Your task to perform on an android device: turn off improve location accuracy Image 0: 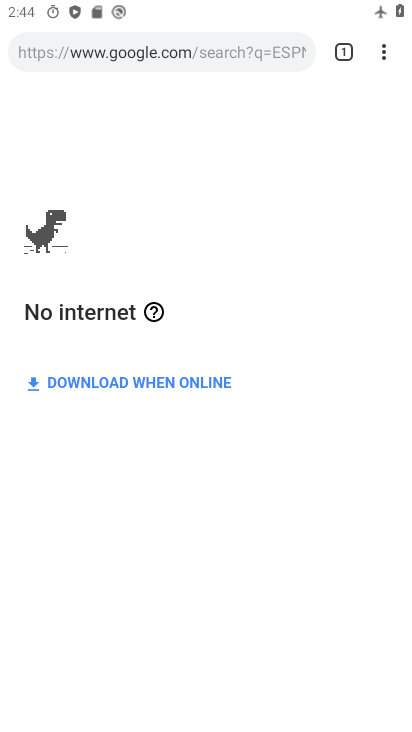
Step 0: press home button
Your task to perform on an android device: turn off improve location accuracy Image 1: 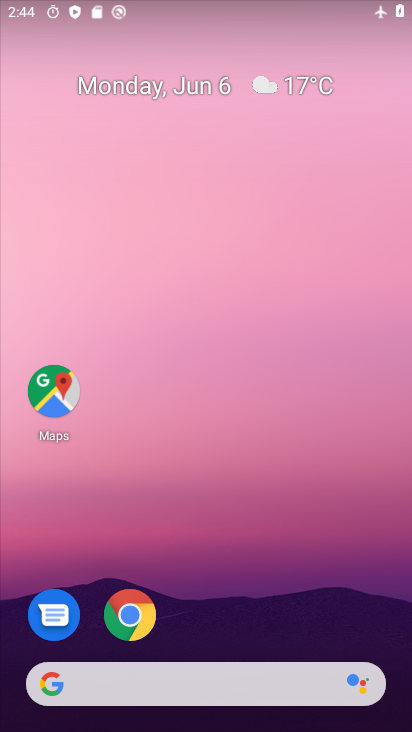
Step 1: drag from (288, 505) to (311, 118)
Your task to perform on an android device: turn off improve location accuracy Image 2: 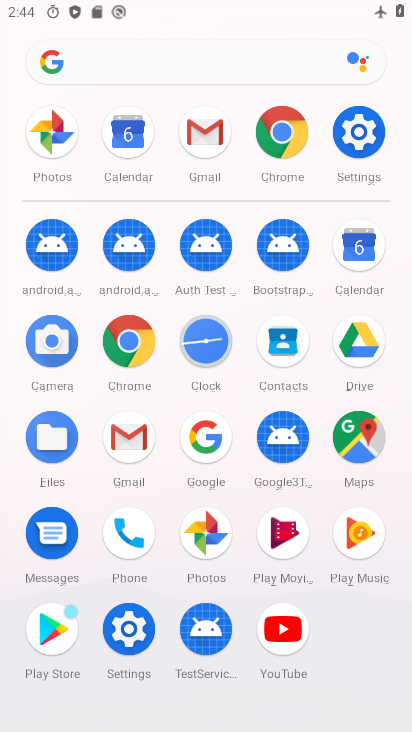
Step 2: click (362, 134)
Your task to perform on an android device: turn off improve location accuracy Image 3: 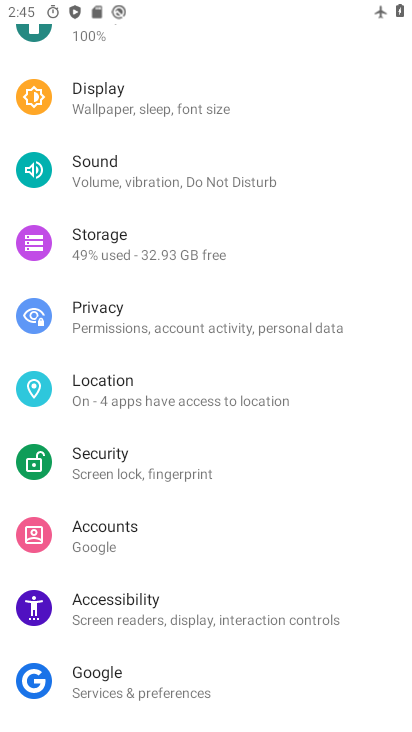
Step 3: click (150, 405)
Your task to perform on an android device: turn off improve location accuracy Image 4: 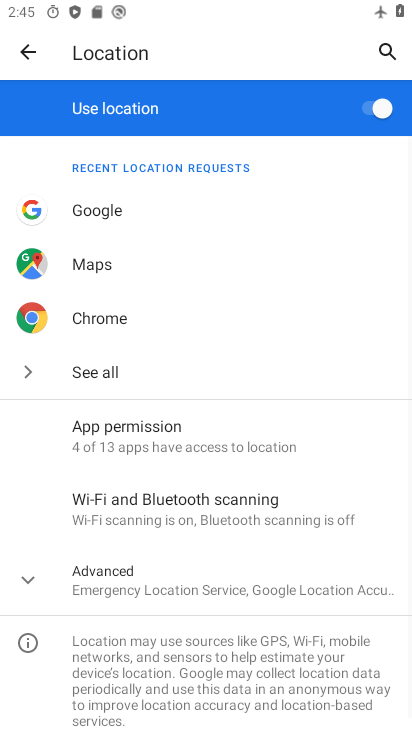
Step 4: click (190, 591)
Your task to perform on an android device: turn off improve location accuracy Image 5: 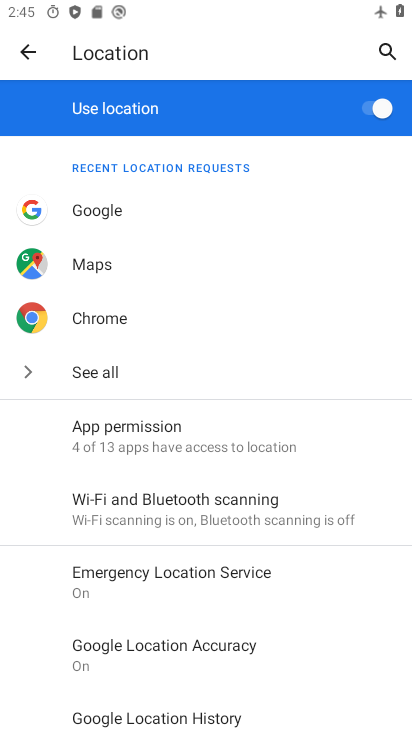
Step 5: click (181, 645)
Your task to perform on an android device: turn off improve location accuracy Image 6: 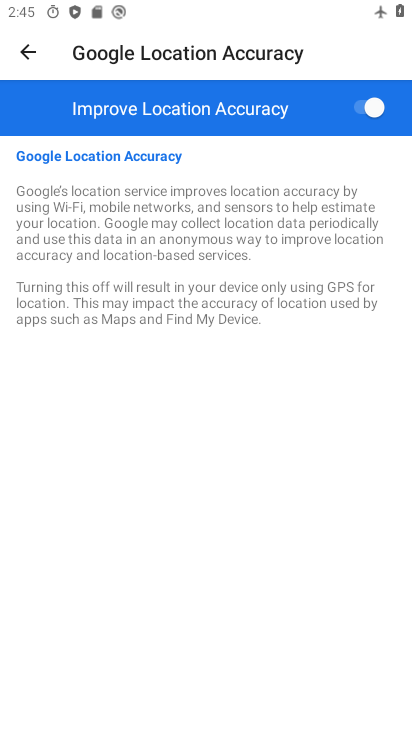
Step 6: click (347, 107)
Your task to perform on an android device: turn off improve location accuracy Image 7: 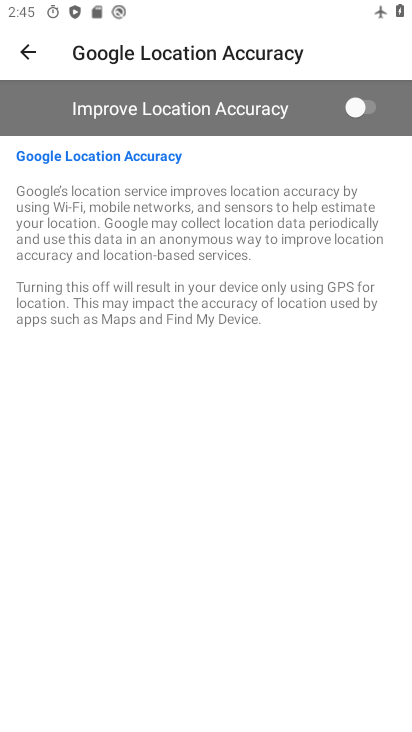
Step 7: task complete